Your task to perform on an android device: Check the news Image 0: 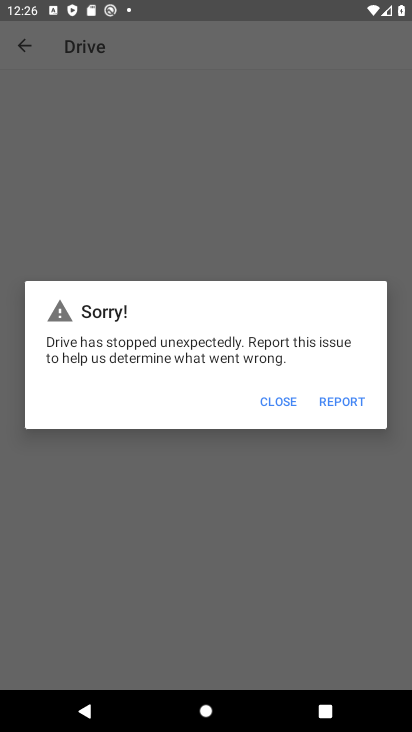
Step 0: press home button
Your task to perform on an android device: Check the news Image 1: 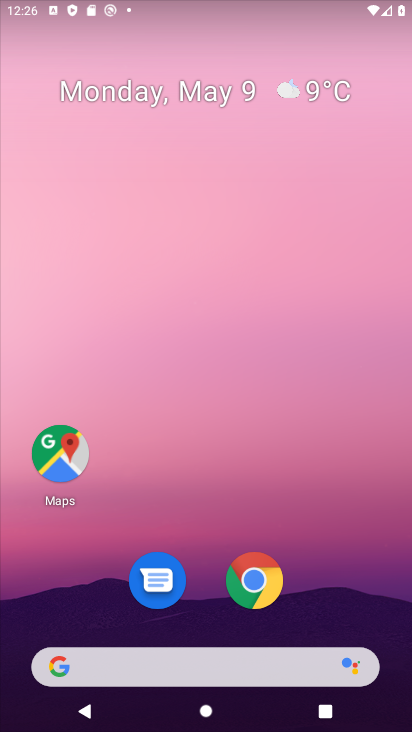
Step 1: drag from (339, 547) to (276, 81)
Your task to perform on an android device: Check the news Image 2: 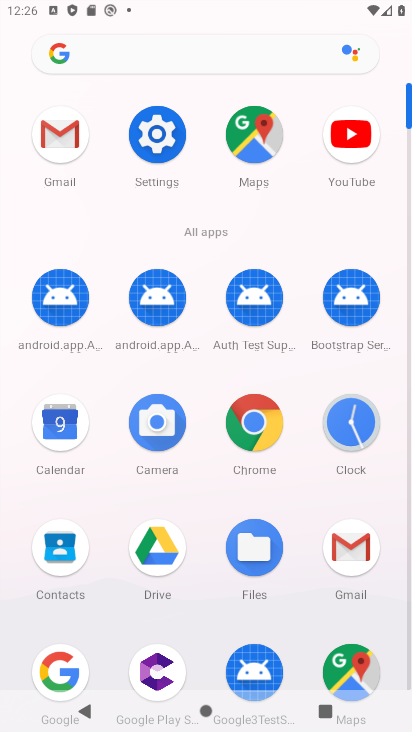
Step 2: click (58, 673)
Your task to perform on an android device: Check the news Image 3: 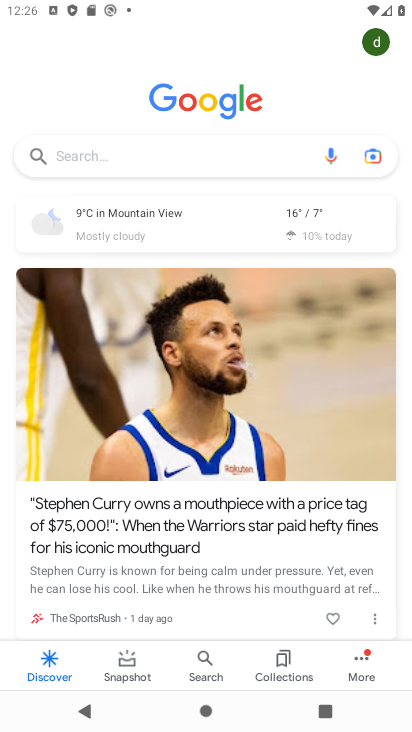
Step 3: click (141, 159)
Your task to perform on an android device: Check the news Image 4: 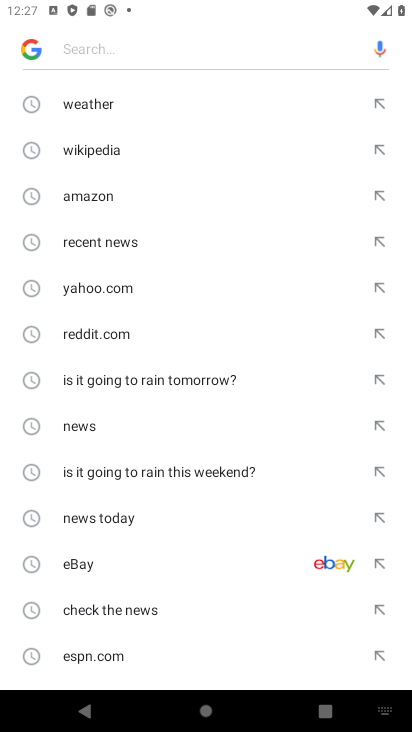
Step 4: click (85, 415)
Your task to perform on an android device: Check the news Image 5: 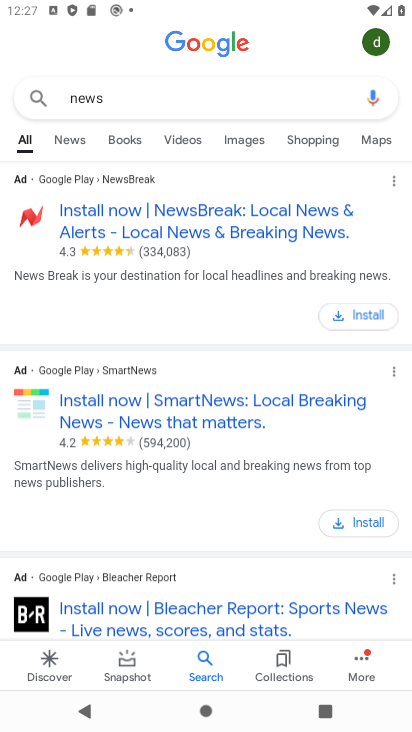
Step 5: click (65, 136)
Your task to perform on an android device: Check the news Image 6: 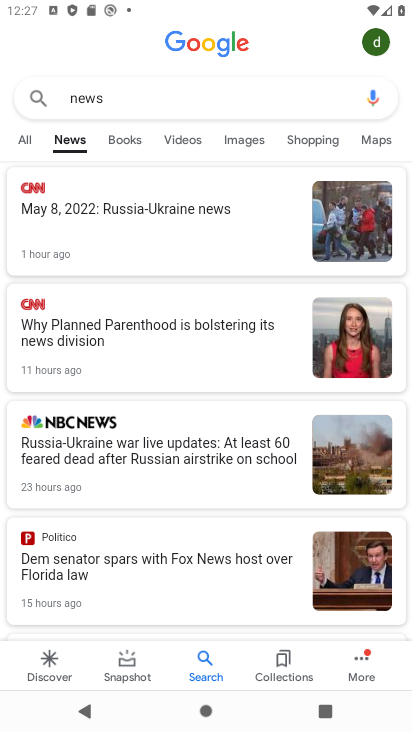
Step 6: task complete